Your task to perform on an android device: Open internet settings Image 0: 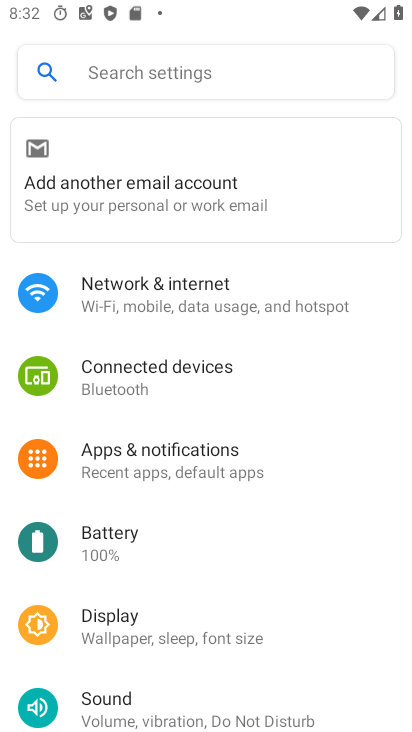
Step 0: press back button
Your task to perform on an android device: Open internet settings Image 1: 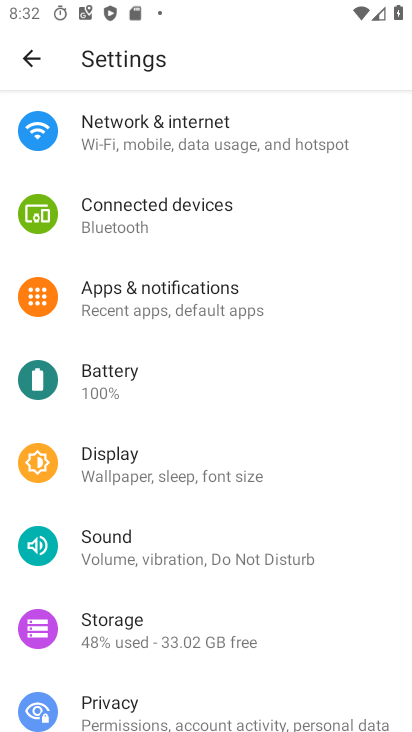
Step 1: click (24, 63)
Your task to perform on an android device: Open internet settings Image 2: 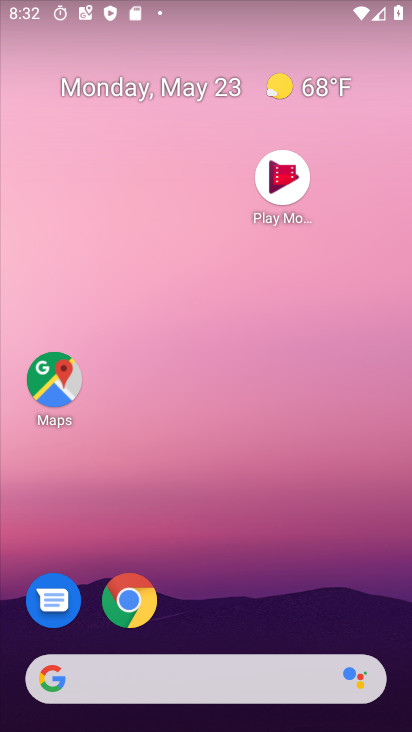
Step 2: drag from (267, 690) to (237, 113)
Your task to perform on an android device: Open internet settings Image 3: 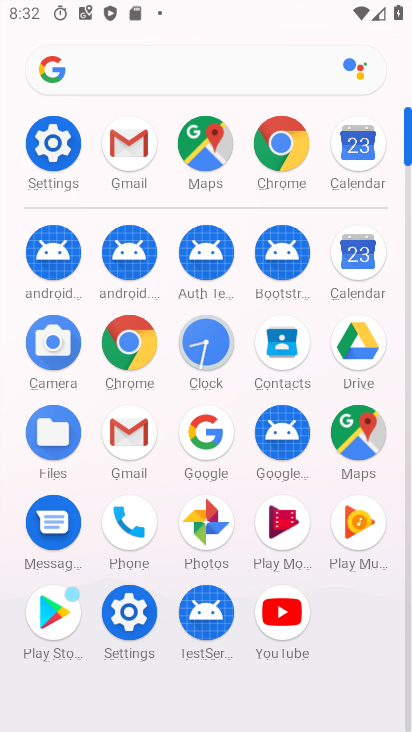
Step 3: click (54, 143)
Your task to perform on an android device: Open internet settings Image 4: 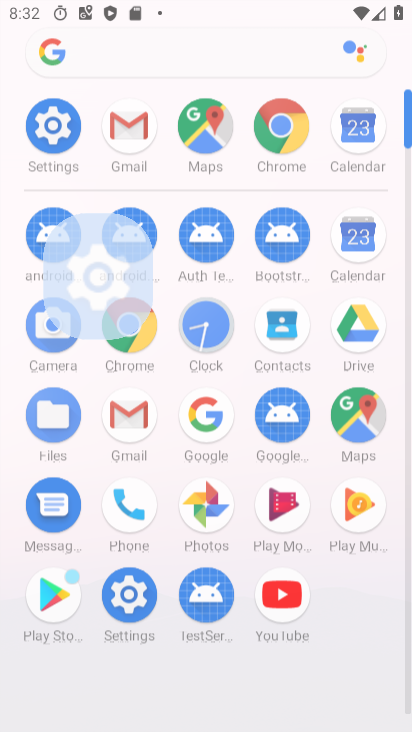
Step 4: click (58, 151)
Your task to perform on an android device: Open internet settings Image 5: 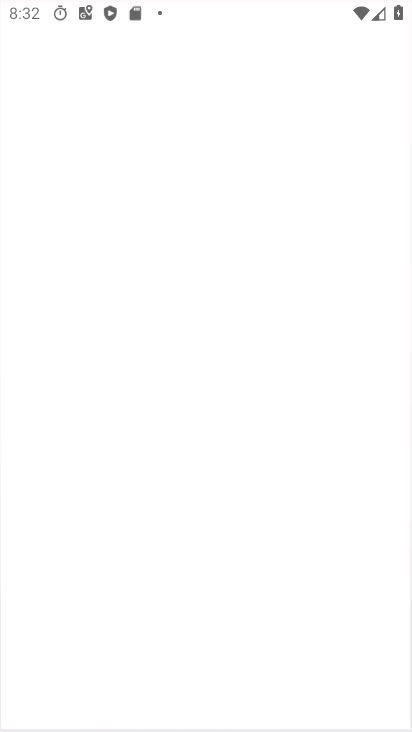
Step 5: click (66, 153)
Your task to perform on an android device: Open internet settings Image 6: 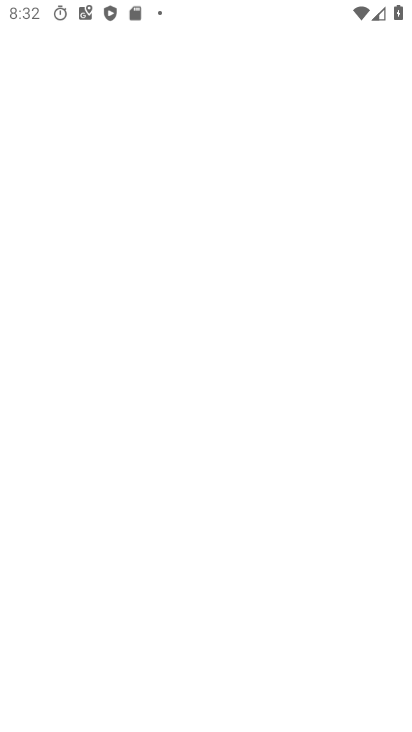
Step 6: click (67, 153)
Your task to perform on an android device: Open internet settings Image 7: 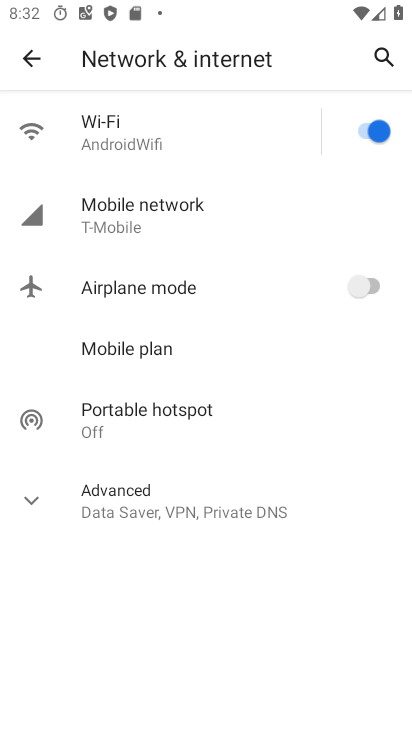
Step 7: task complete